Your task to perform on an android device: Open Youtube and go to "Your channel" Image 0: 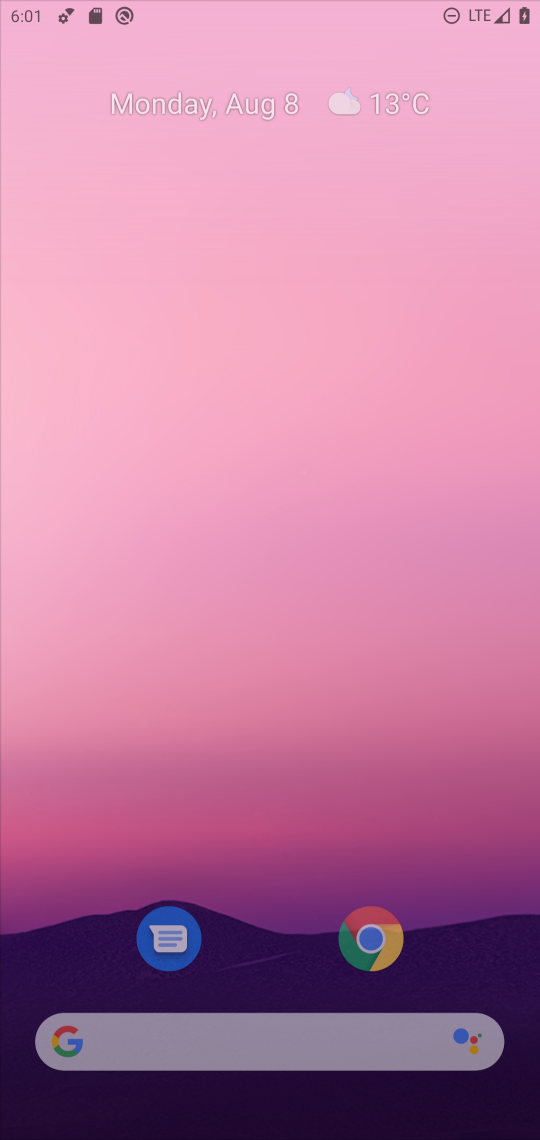
Step 0: press home button
Your task to perform on an android device: Open Youtube and go to "Your channel" Image 1: 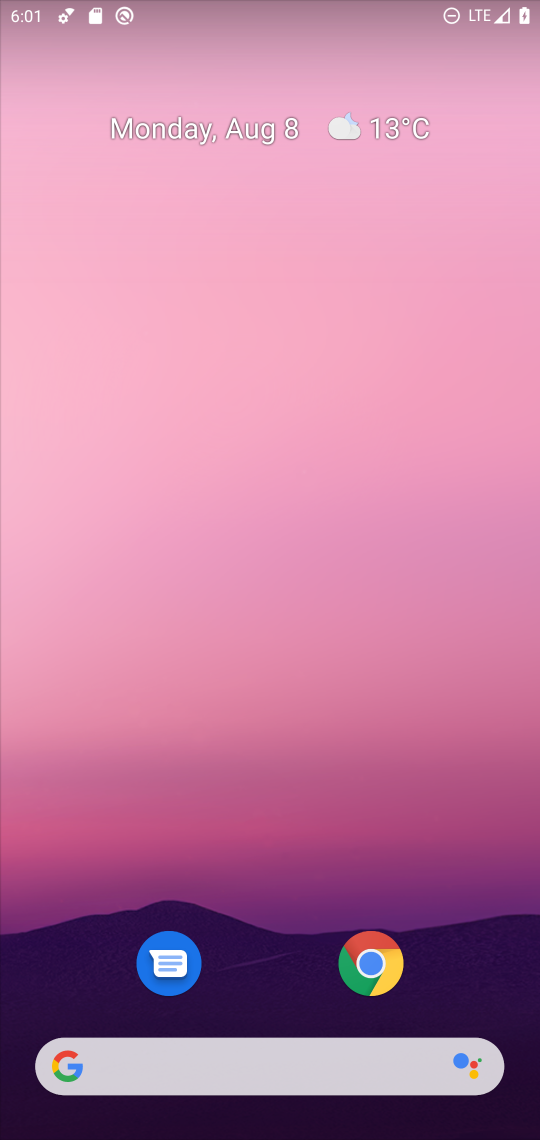
Step 1: drag from (273, 901) to (268, 228)
Your task to perform on an android device: Open Youtube and go to "Your channel" Image 2: 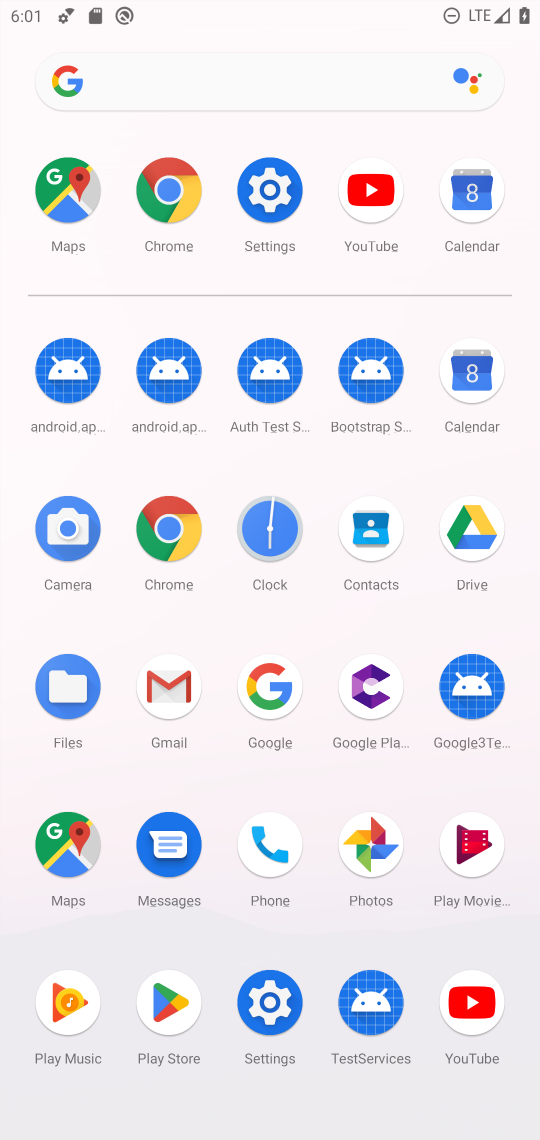
Step 2: click (363, 179)
Your task to perform on an android device: Open Youtube and go to "Your channel" Image 3: 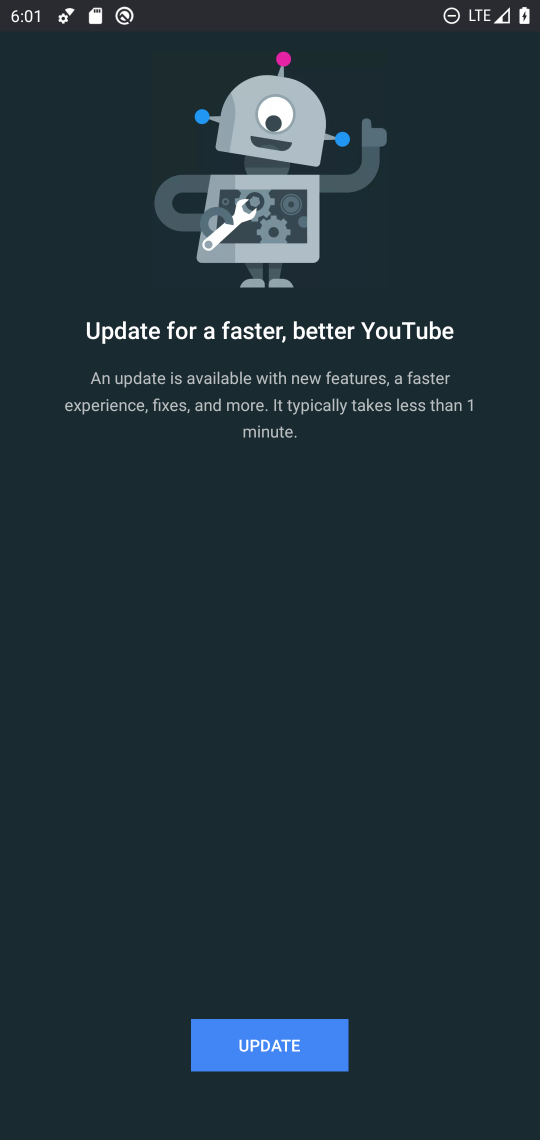
Step 3: click (248, 1051)
Your task to perform on an android device: Open Youtube and go to "Your channel" Image 4: 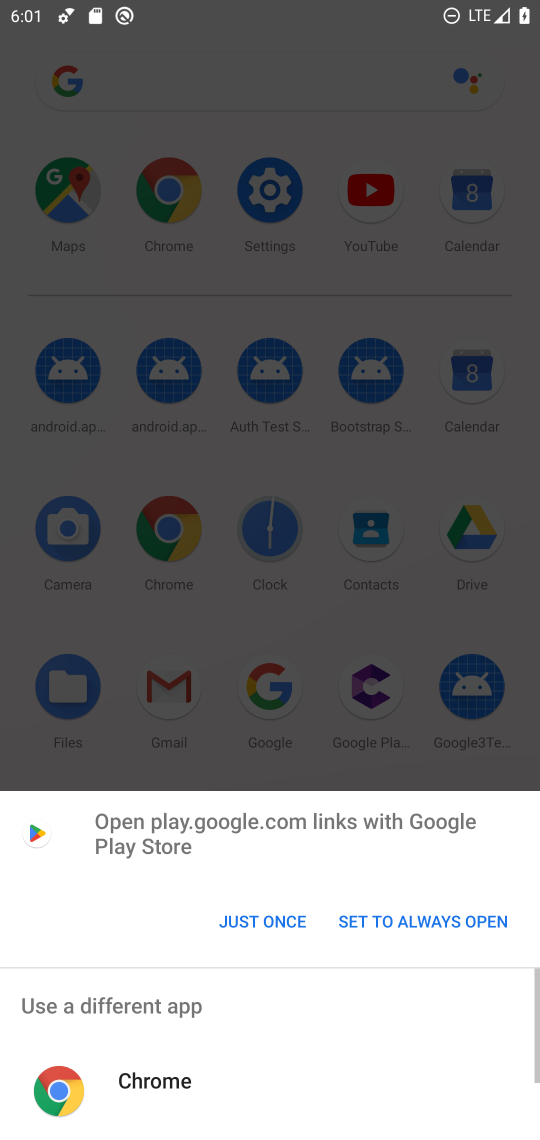
Step 4: click (243, 922)
Your task to perform on an android device: Open Youtube and go to "Your channel" Image 5: 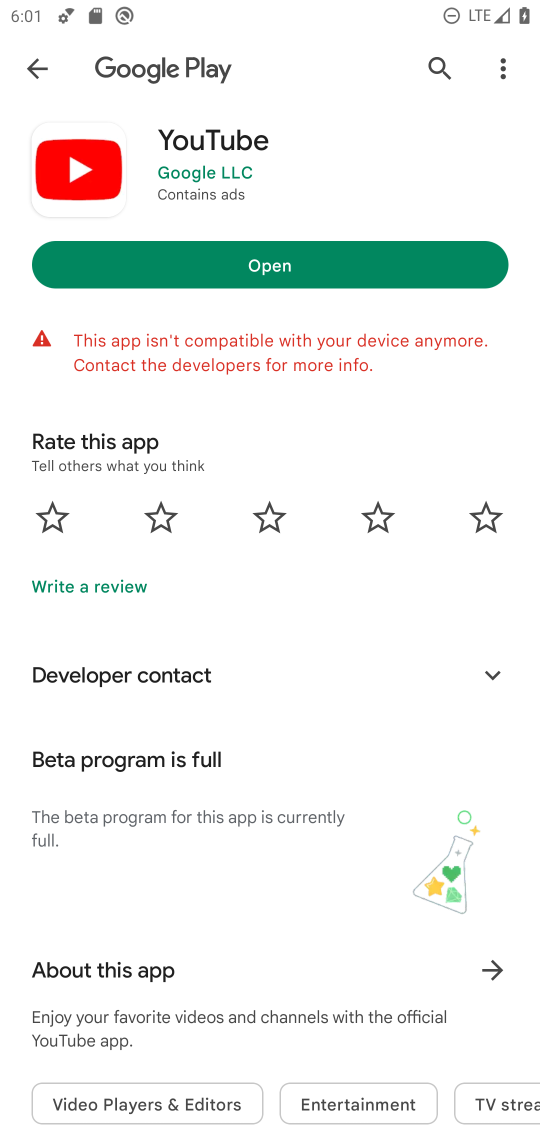
Step 5: task complete